Your task to perform on an android device: check battery use Image 0: 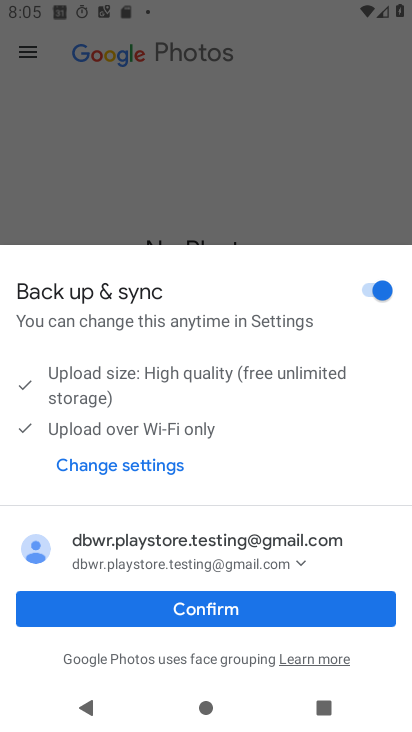
Step 0: press home button
Your task to perform on an android device: check battery use Image 1: 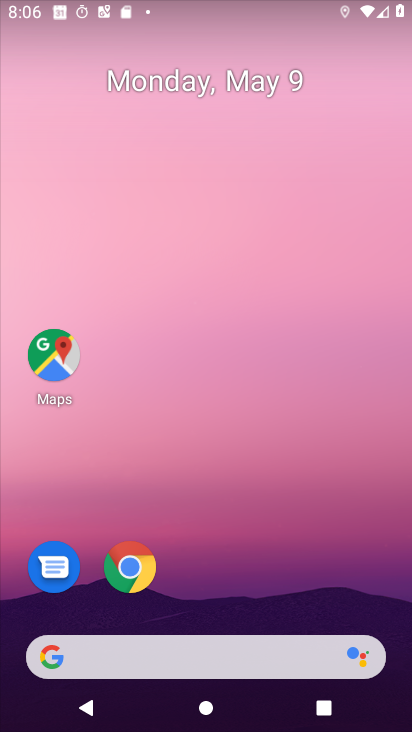
Step 1: drag from (243, 572) to (236, 15)
Your task to perform on an android device: check battery use Image 2: 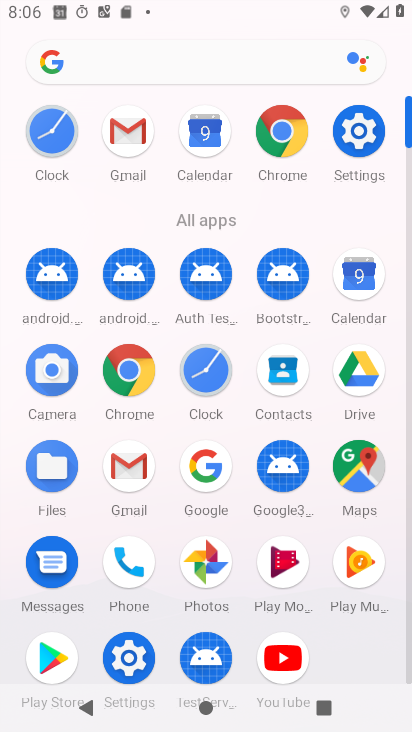
Step 2: click (356, 138)
Your task to perform on an android device: check battery use Image 3: 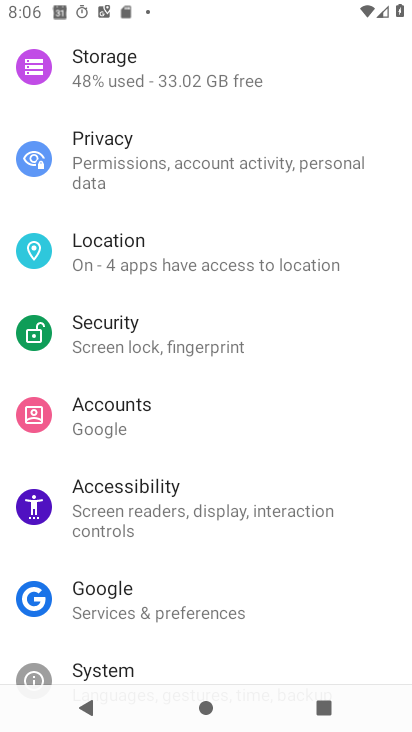
Step 3: drag from (161, 200) to (214, 366)
Your task to perform on an android device: check battery use Image 4: 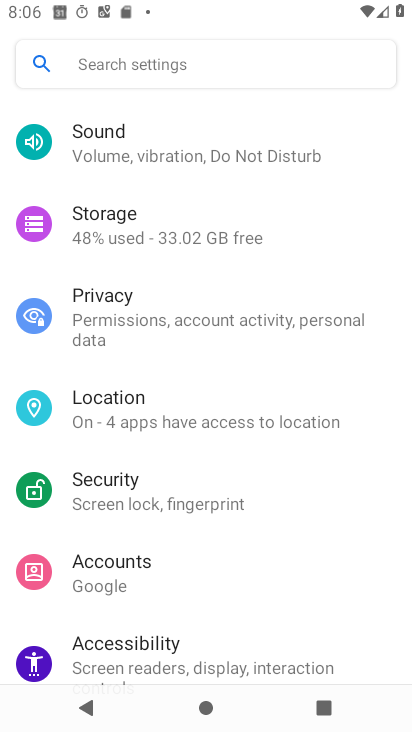
Step 4: drag from (172, 247) to (169, 467)
Your task to perform on an android device: check battery use Image 5: 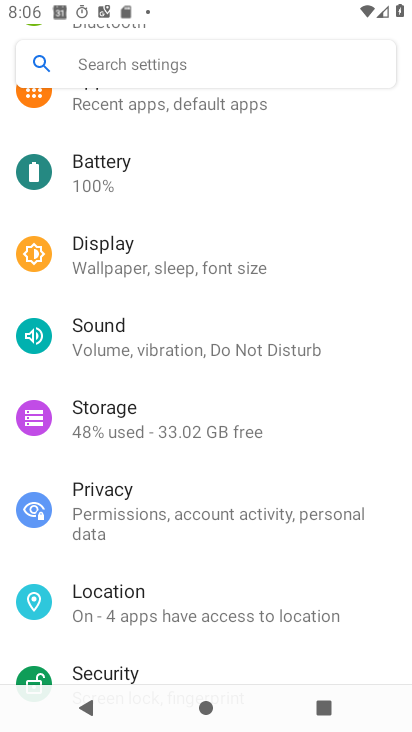
Step 5: drag from (125, 257) to (166, 512)
Your task to perform on an android device: check battery use Image 6: 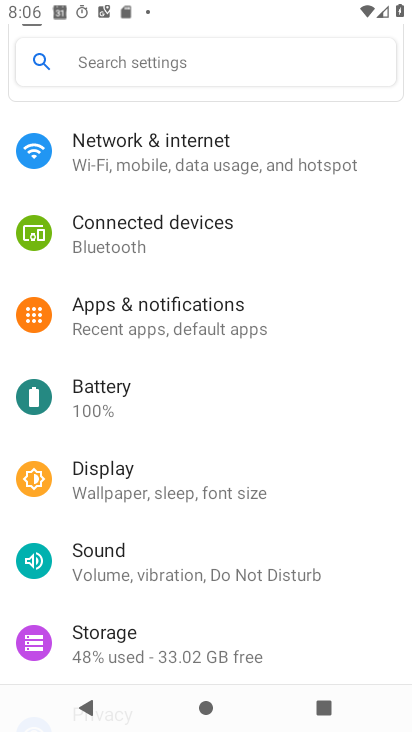
Step 6: click (117, 382)
Your task to perform on an android device: check battery use Image 7: 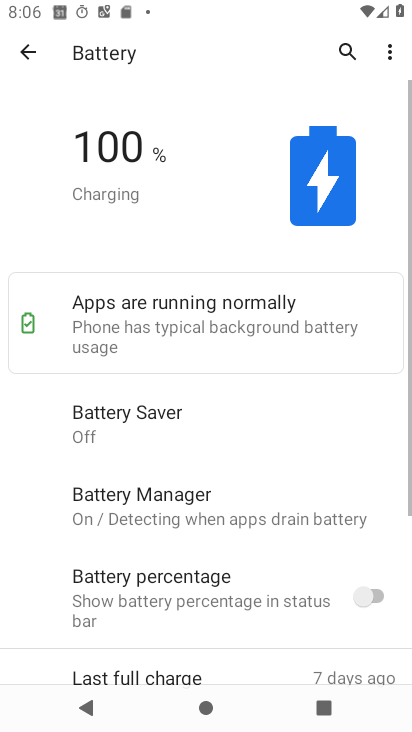
Step 7: click (383, 53)
Your task to perform on an android device: check battery use Image 8: 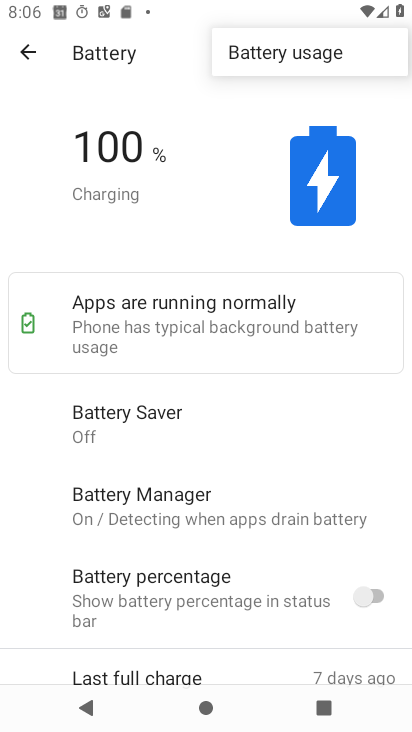
Step 8: click (355, 54)
Your task to perform on an android device: check battery use Image 9: 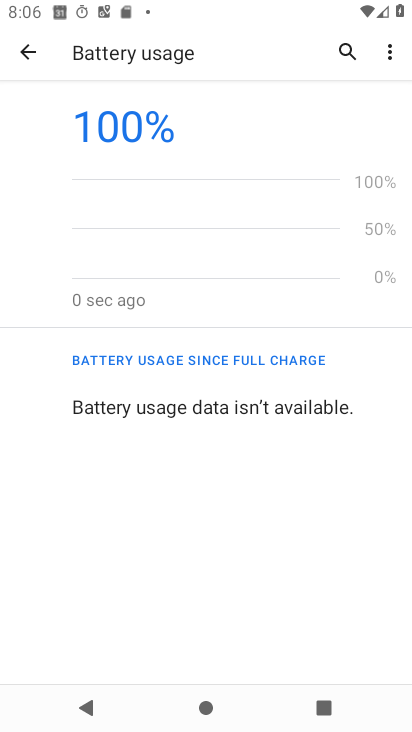
Step 9: task complete